Your task to perform on an android device: show emergency info Image 0: 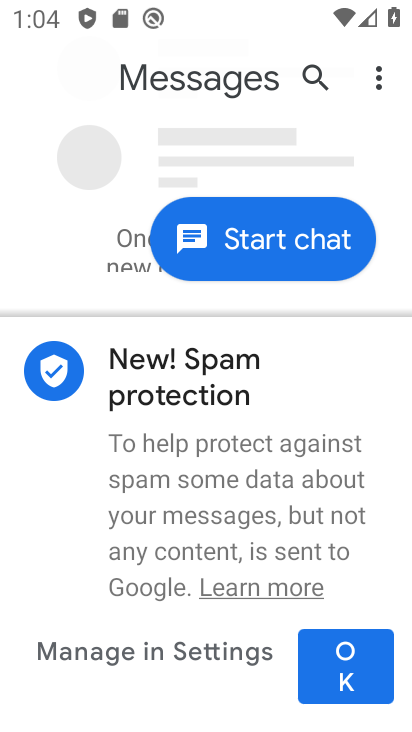
Step 0: press home button
Your task to perform on an android device: show emergency info Image 1: 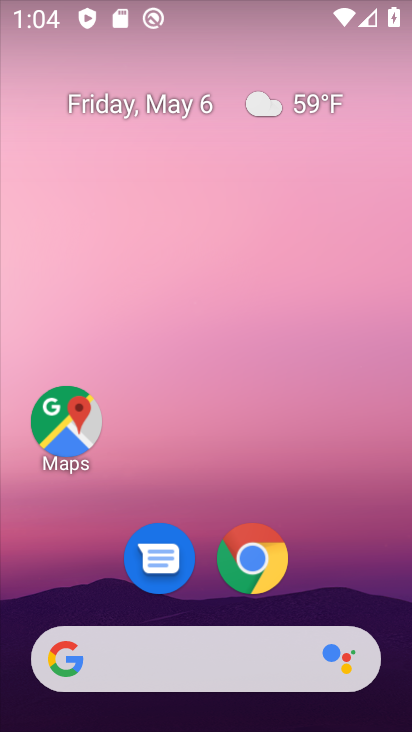
Step 1: drag from (208, 672) to (201, 266)
Your task to perform on an android device: show emergency info Image 2: 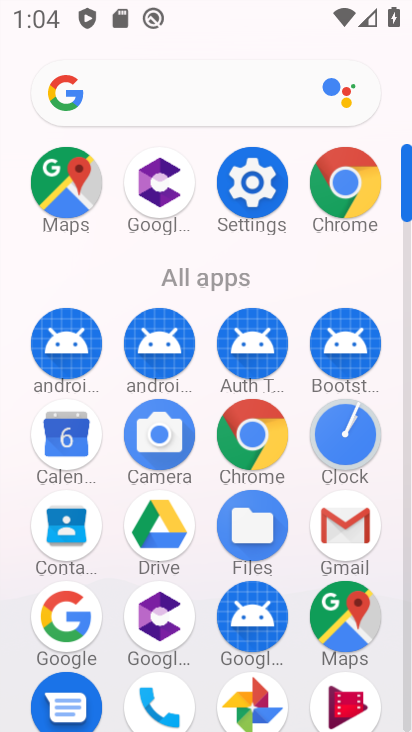
Step 2: click (254, 189)
Your task to perform on an android device: show emergency info Image 3: 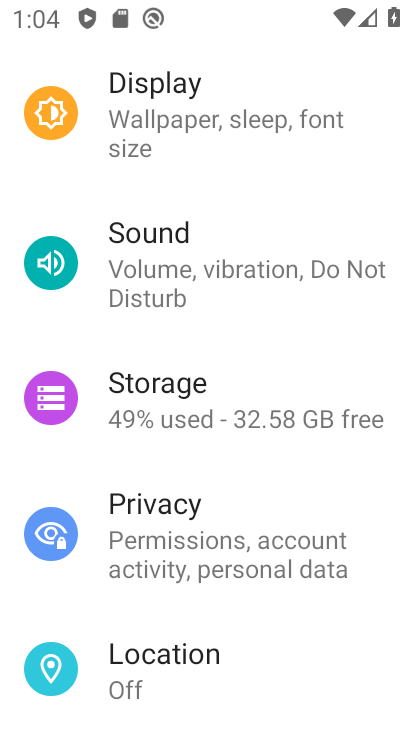
Step 3: drag from (234, 611) to (247, 369)
Your task to perform on an android device: show emergency info Image 4: 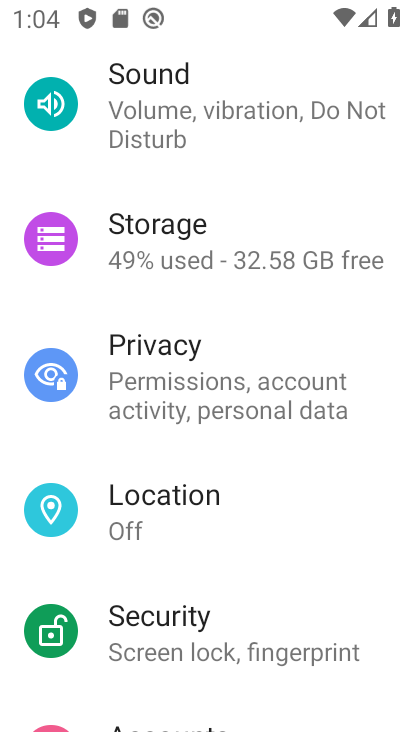
Step 4: drag from (232, 692) to (268, 297)
Your task to perform on an android device: show emergency info Image 5: 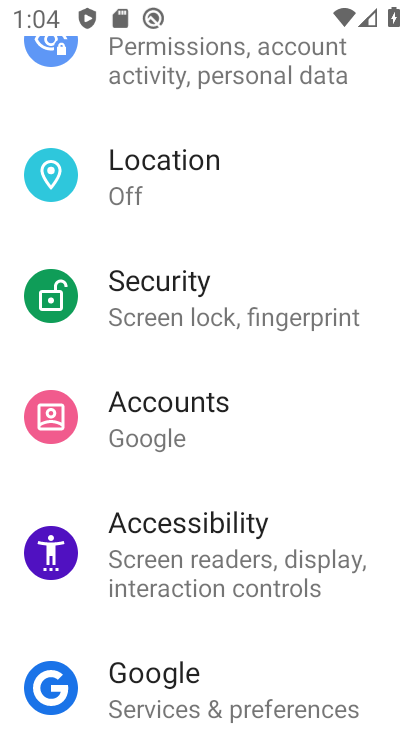
Step 5: drag from (200, 394) to (211, 300)
Your task to perform on an android device: show emergency info Image 6: 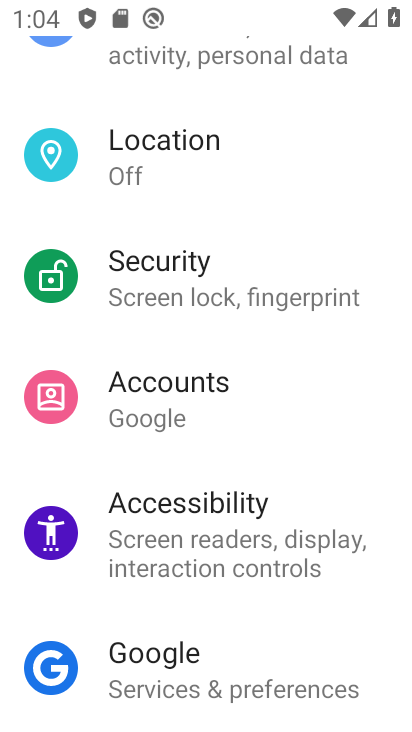
Step 6: drag from (179, 680) to (225, 316)
Your task to perform on an android device: show emergency info Image 7: 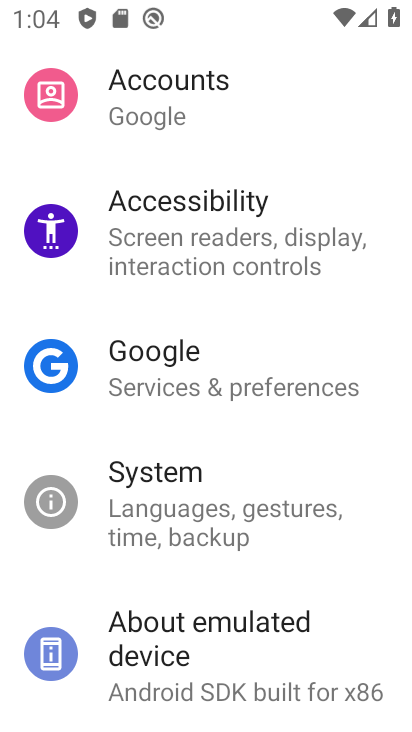
Step 7: drag from (187, 699) to (240, 219)
Your task to perform on an android device: show emergency info Image 8: 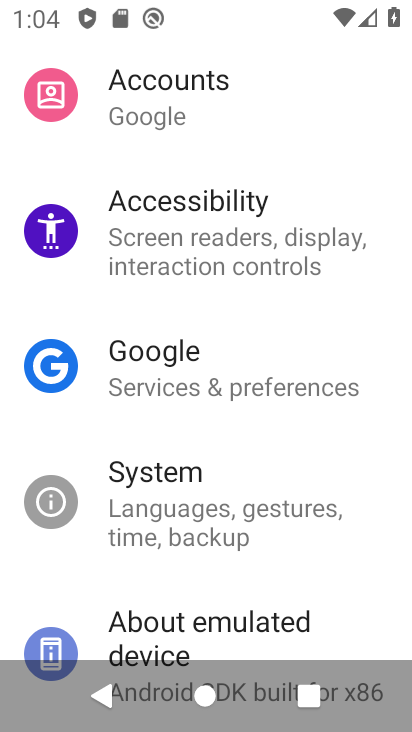
Step 8: click (172, 628)
Your task to perform on an android device: show emergency info Image 9: 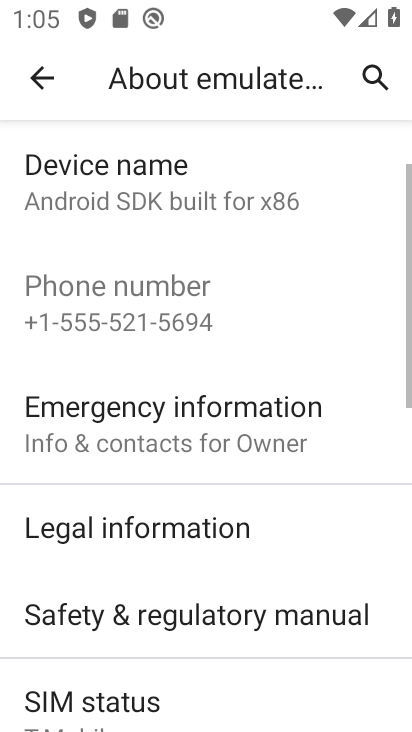
Step 9: click (162, 415)
Your task to perform on an android device: show emergency info Image 10: 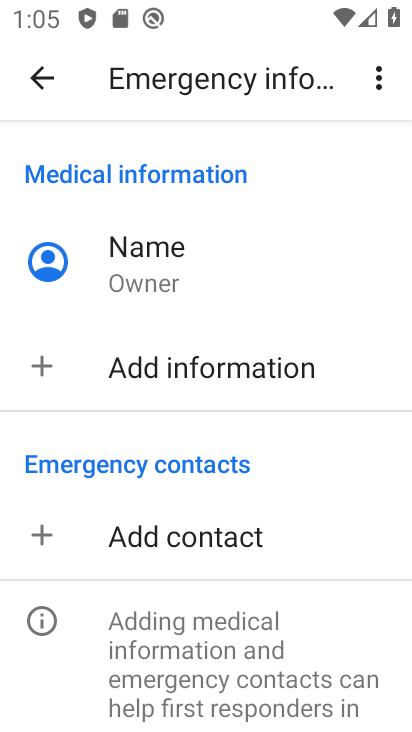
Step 10: task complete